Your task to perform on an android device: Open calendar and show me the first week of next month Image 0: 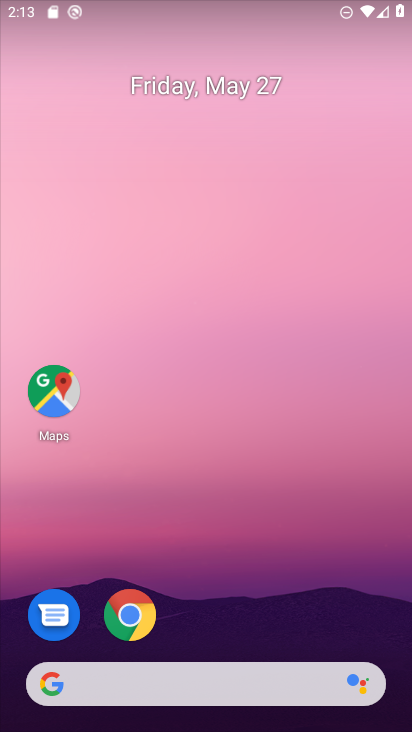
Step 0: drag from (264, 588) to (303, 271)
Your task to perform on an android device: Open calendar and show me the first week of next month Image 1: 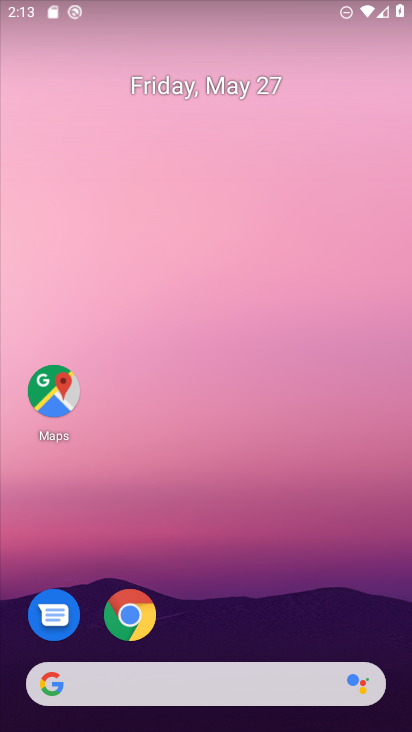
Step 1: drag from (229, 622) to (241, 222)
Your task to perform on an android device: Open calendar and show me the first week of next month Image 2: 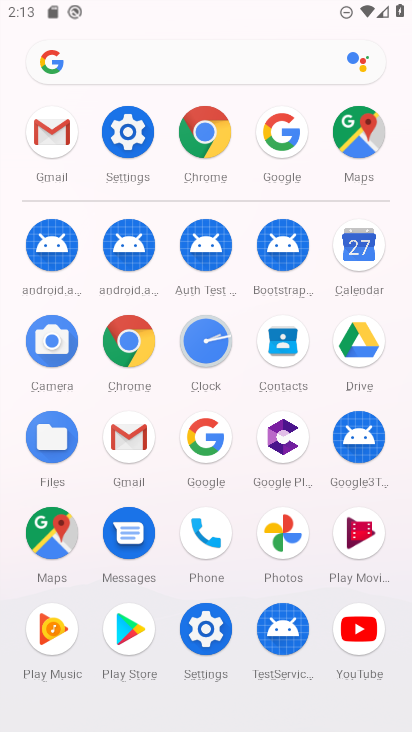
Step 2: click (363, 262)
Your task to perform on an android device: Open calendar and show me the first week of next month Image 3: 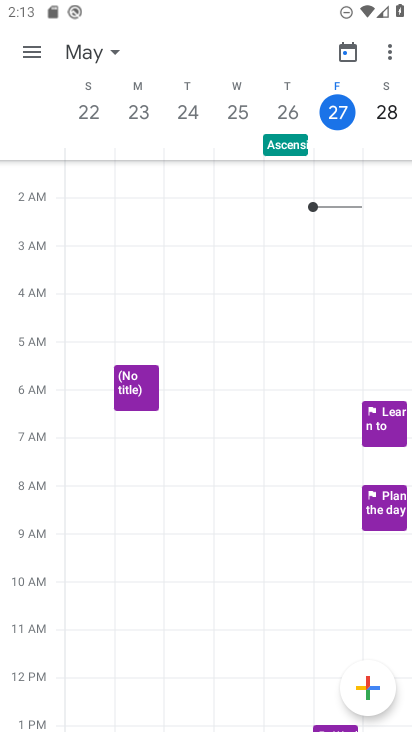
Step 3: click (96, 56)
Your task to perform on an android device: Open calendar and show me the first week of next month Image 4: 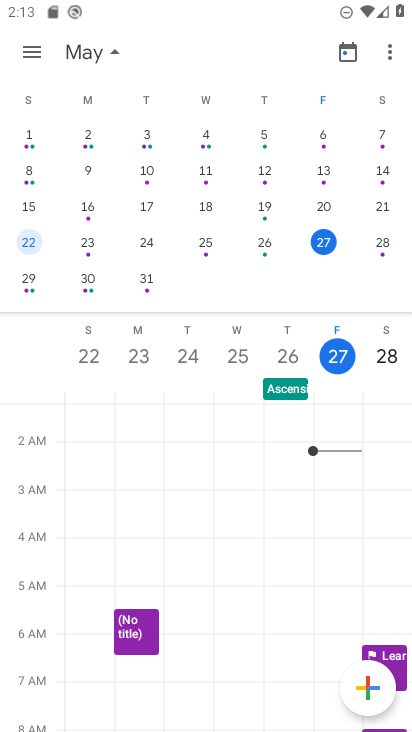
Step 4: drag from (351, 238) to (0, 236)
Your task to perform on an android device: Open calendar and show me the first week of next month Image 5: 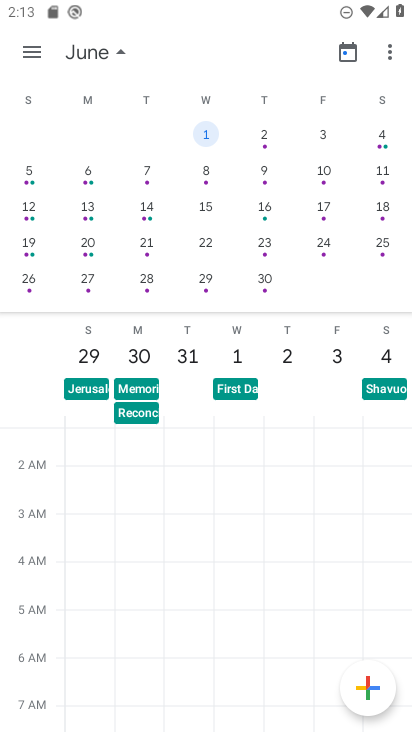
Step 5: click (103, 50)
Your task to perform on an android device: Open calendar and show me the first week of next month Image 6: 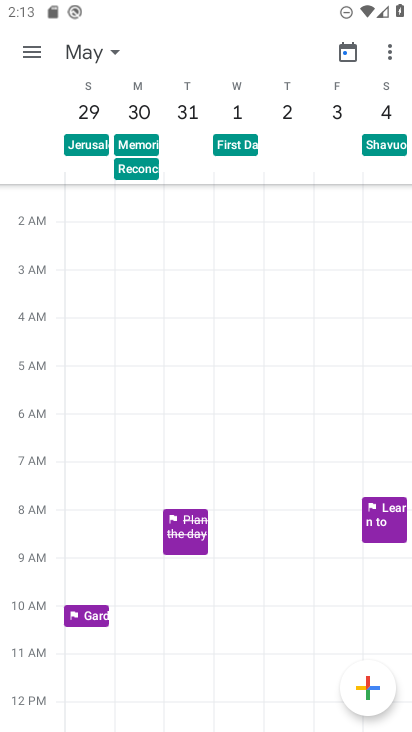
Step 6: task complete